Your task to perform on an android device: refresh tabs in the chrome app Image 0: 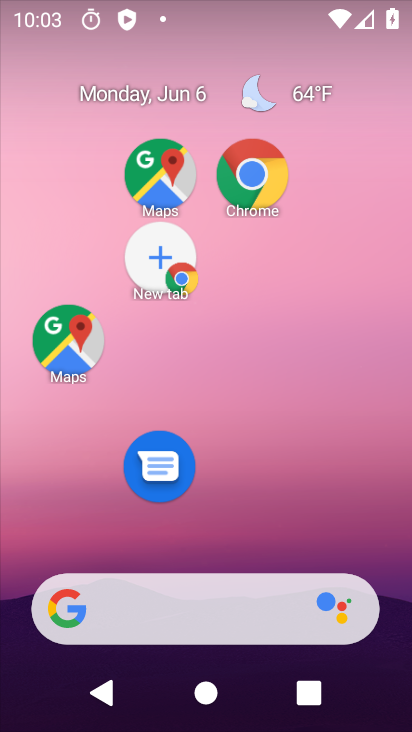
Step 0: drag from (275, 687) to (320, 115)
Your task to perform on an android device: refresh tabs in the chrome app Image 1: 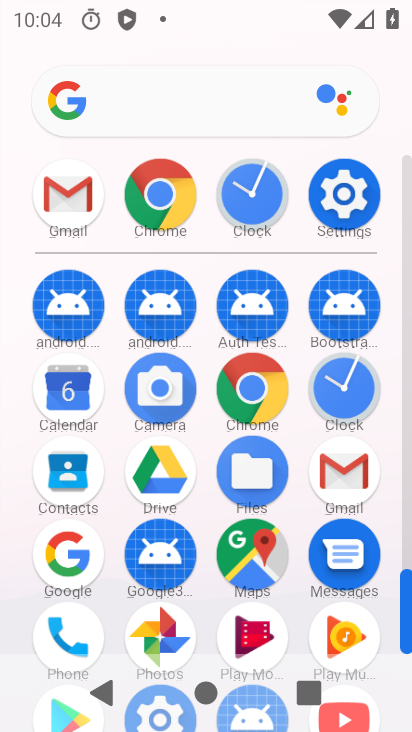
Step 1: click (245, 388)
Your task to perform on an android device: refresh tabs in the chrome app Image 2: 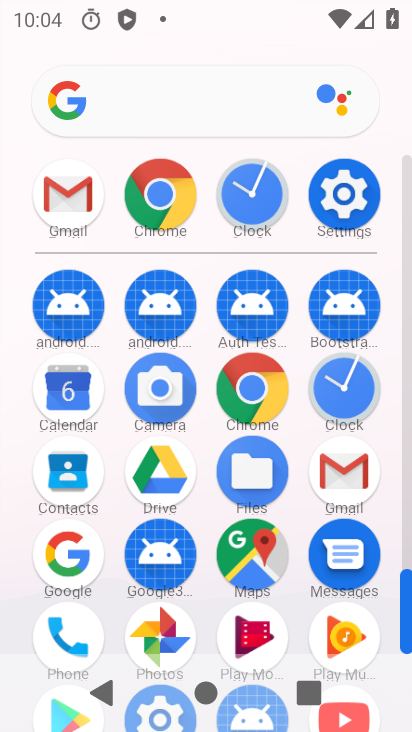
Step 2: click (245, 388)
Your task to perform on an android device: refresh tabs in the chrome app Image 3: 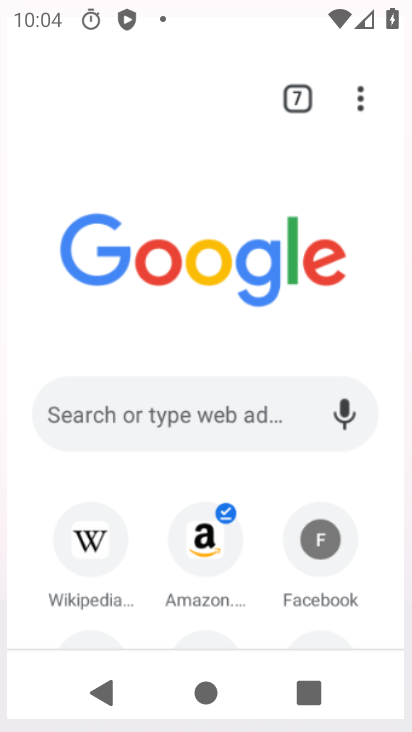
Step 3: click (247, 385)
Your task to perform on an android device: refresh tabs in the chrome app Image 4: 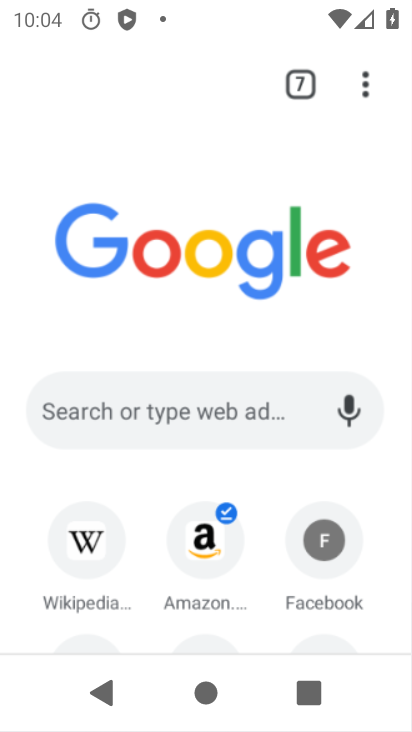
Step 4: click (247, 385)
Your task to perform on an android device: refresh tabs in the chrome app Image 5: 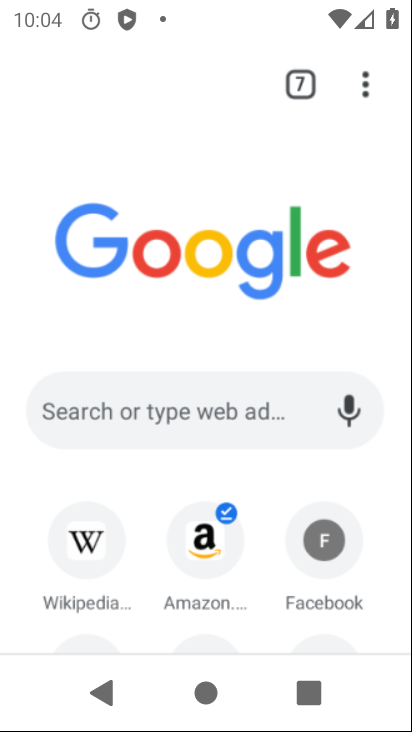
Step 5: click (247, 385)
Your task to perform on an android device: refresh tabs in the chrome app Image 6: 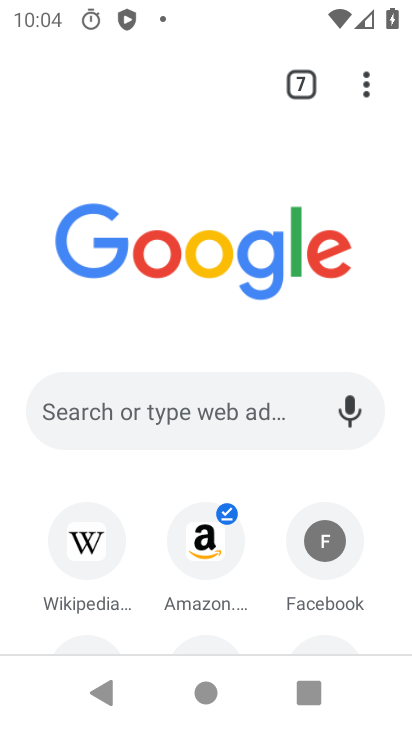
Step 6: click (366, 87)
Your task to perform on an android device: refresh tabs in the chrome app Image 7: 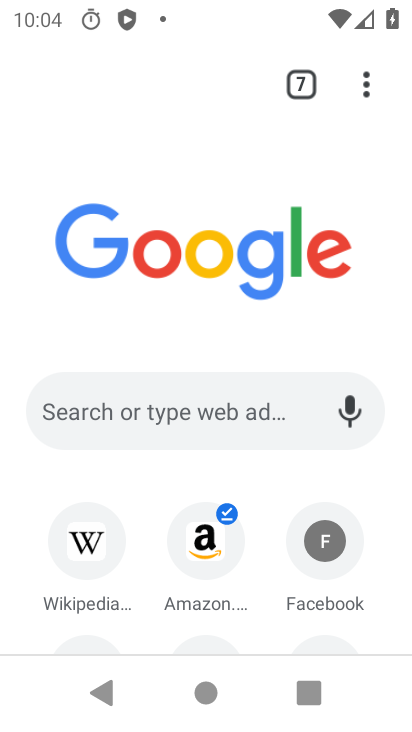
Step 7: click (383, 87)
Your task to perform on an android device: refresh tabs in the chrome app Image 8: 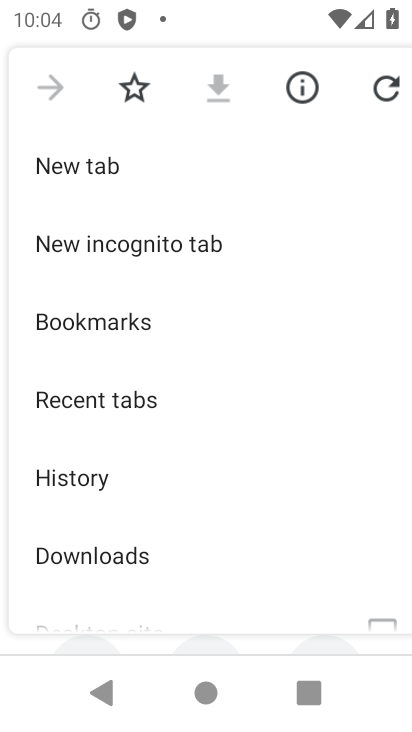
Step 8: task complete